Your task to perform on an android device: Open Google Chrome Image 0: 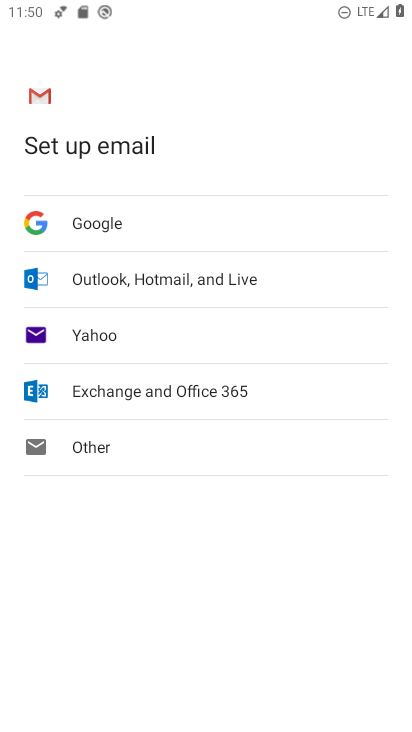
Step 0: press home button
Your task to perform on an android device: Open Google Chrome Image 1: 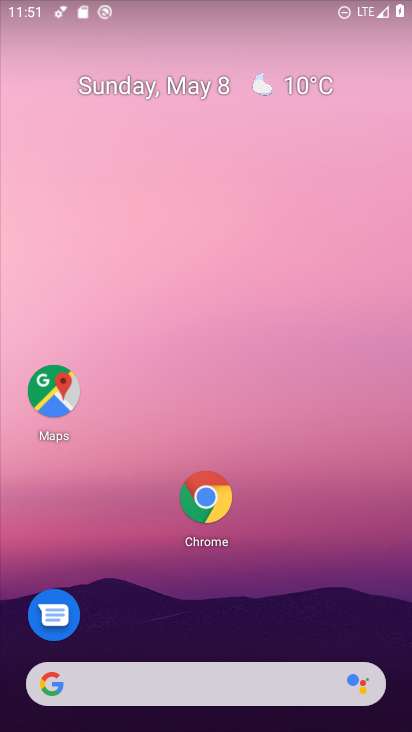
Step 1: drag from (321, 586) to (336, 142)
Your task to perform on an android device: Open Google Chrome Image 2: 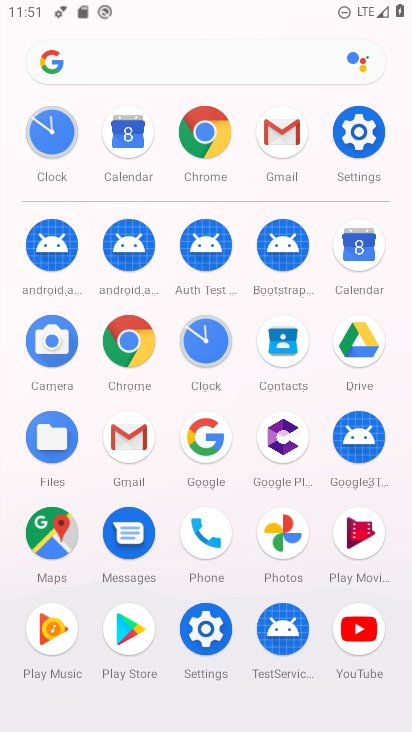
Step 2: click (134, 345)
Your task to perform on an android device: Open Google Chrome Image 3: 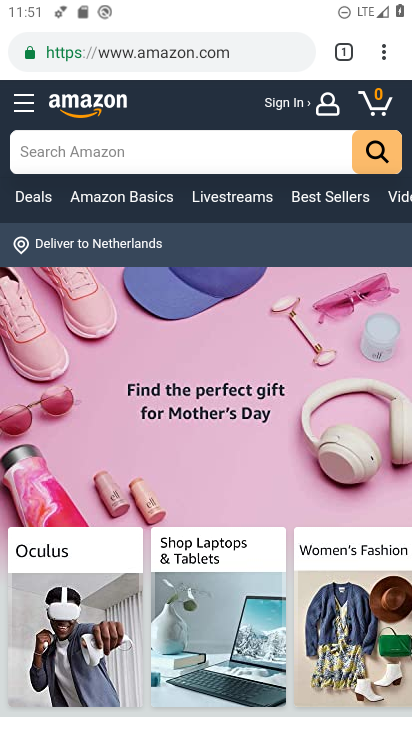
Step 3: task complete